Your task to perform on an android device: add a contact in the contacts app Image 0: 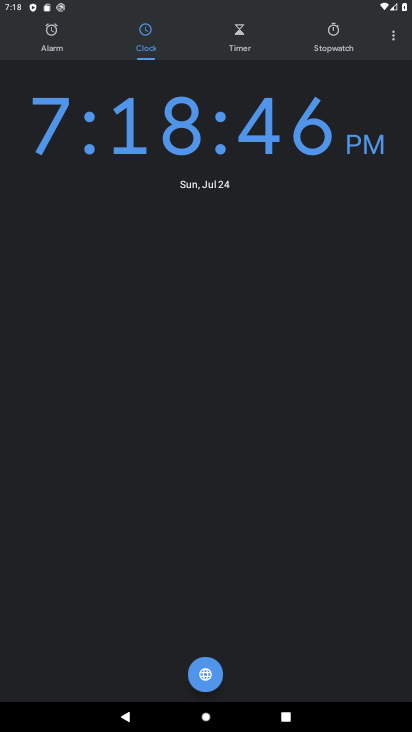
Step 0: press home button
Your task to perform on an android device: add a contact in the contacts app Image 1: 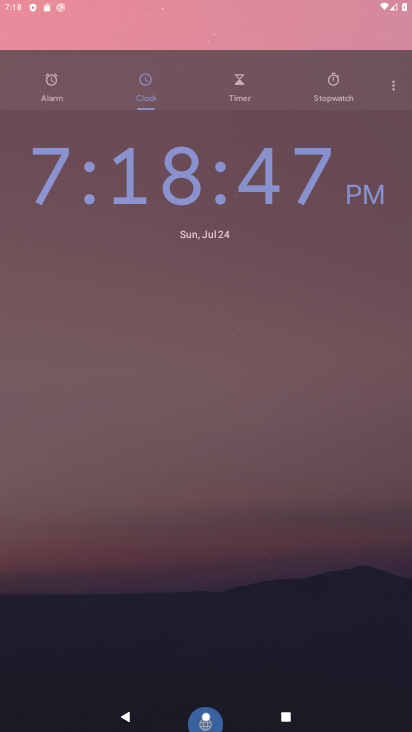
Step 1: drag from (346, 654) to (181, 17)
Your task to perform on an android device: add a contact in the contacts app Image 2: 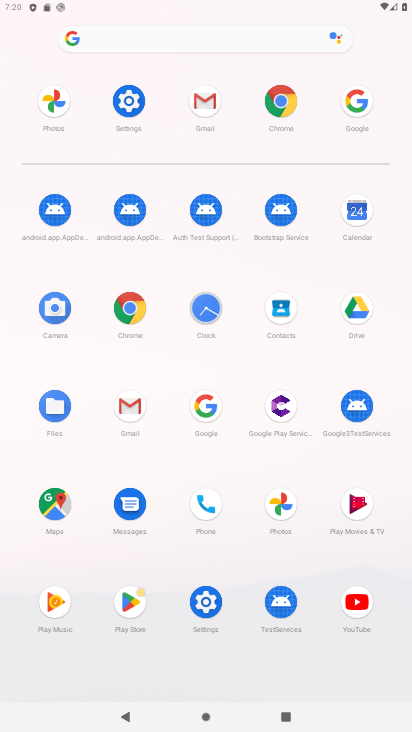
Step 2: click (274, 318)
Your task to perform on an android device: add a contact in the contacts app Image 3: 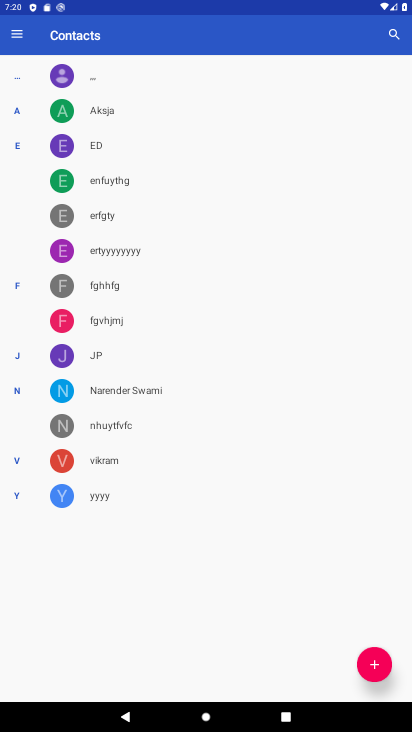
Step 3: click (378, 669)
Your task to perform on an android device: add a contact in the contacts app Image 4: 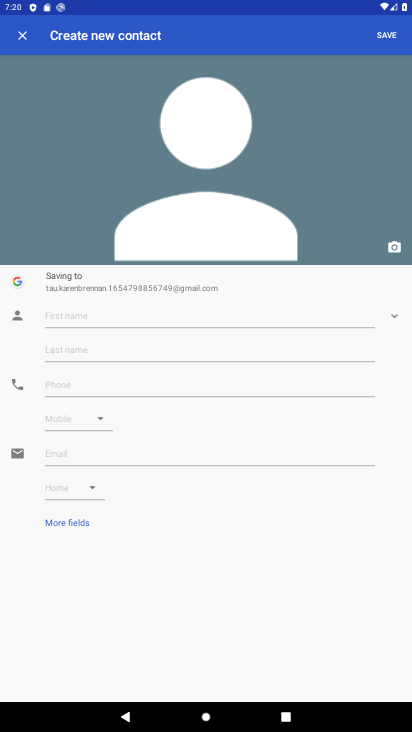
Step 4: click (62, 319)
Your task to perform on an android device: add a contact in the contacts app Image 5: 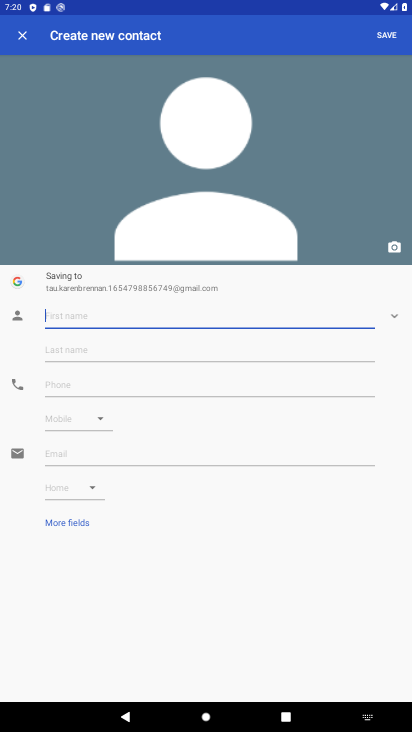
Step 5: type "yo yo"
Your task to perform on an android device: add a contact in the contacts app Image 6: 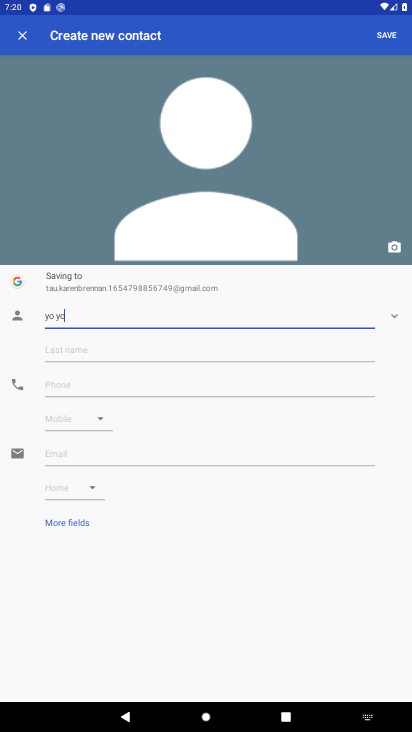
Step 6: click (387, 35)
Your task to perform on an android device: add a contact in the contacts app Image 7: 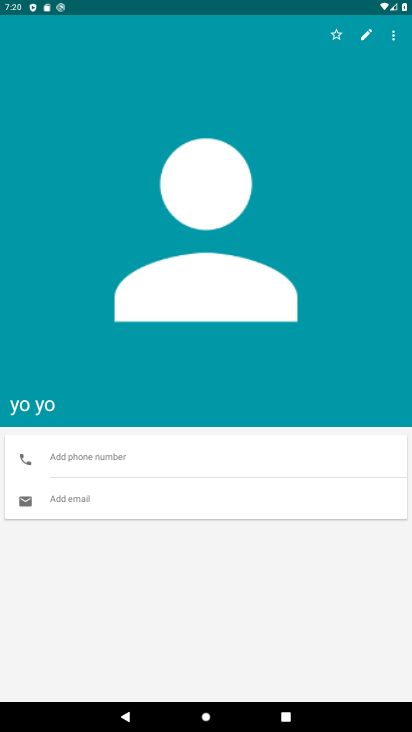
Step 7: task complete